Your task to perform on an android device: Check the news Image 0: 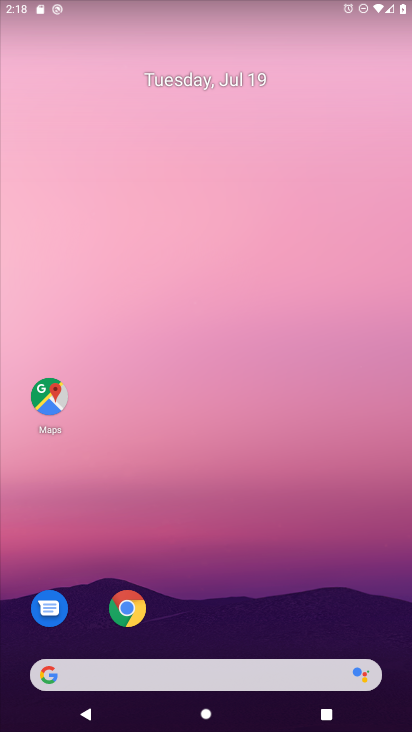
Step 0: drag from (245, 627) to (297, 165)
Your task to perform on an android device: Check the news Image 1: 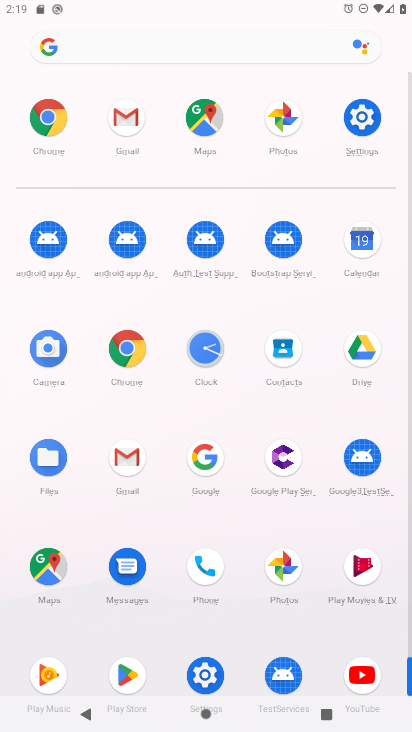
Step 1: click (195, 467)
Your task to perform on an android device: Check the news Image 2: 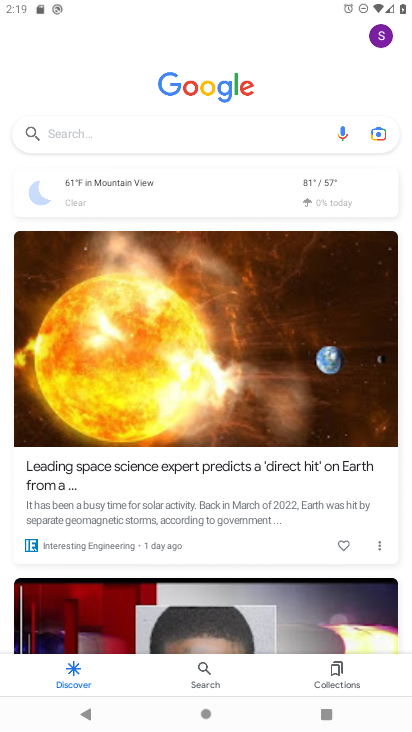
Step 2: task complete